Your task to perform on an android device: check out phone information Image 0: 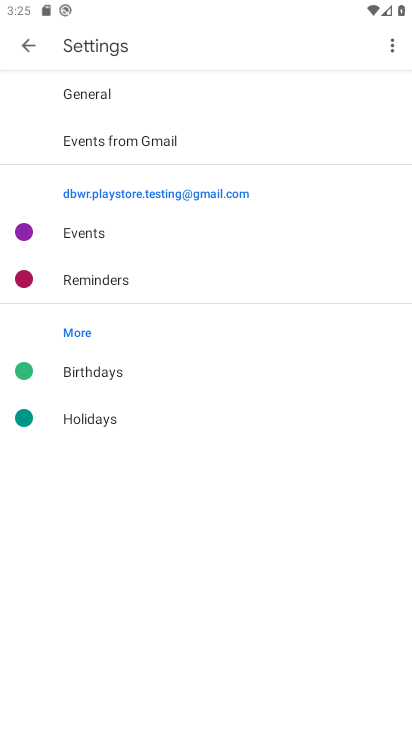
Step 0: drag from (208, 462) to (239, 199)
Your task to perform on an android device: check out phone information Image 1: 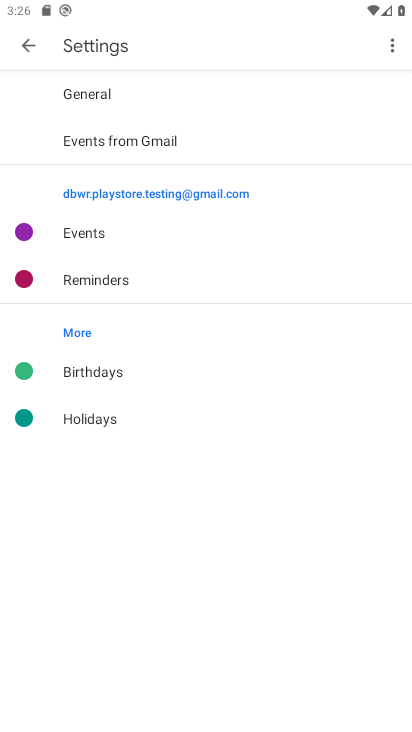
Step 1: press home button
Your task to perform on an android device: check out phone information Image 2: 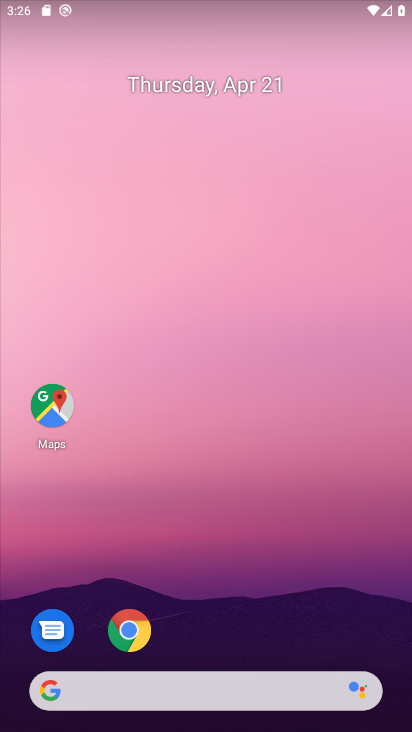
Step 2: drag from (218, 541) to (311, 148)
Your task to perform on an android device: check out phone information Image 3: 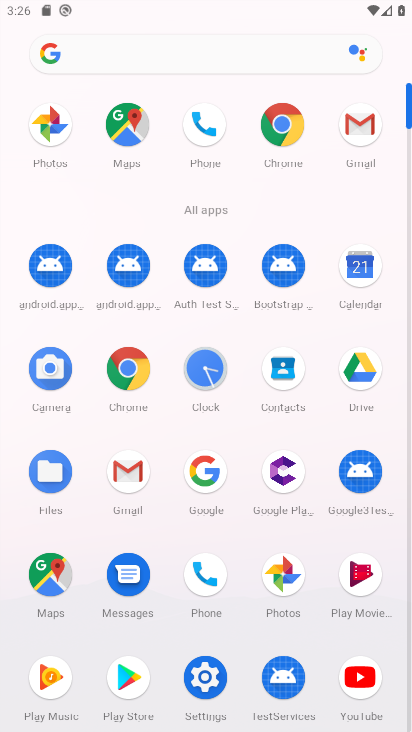
Step 3: click (201, 681)
Your task to perform on an android device: check out phone information Image 4: 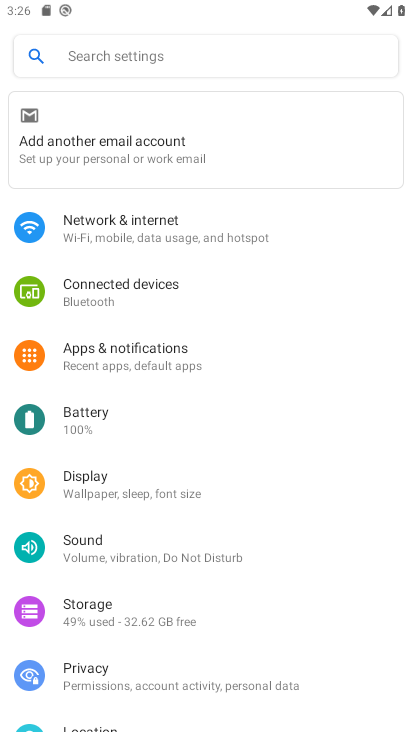
Step 4: drag from (208, 646) to (290, 64)
Your task to perform on an android device: check out phone information Image 5: 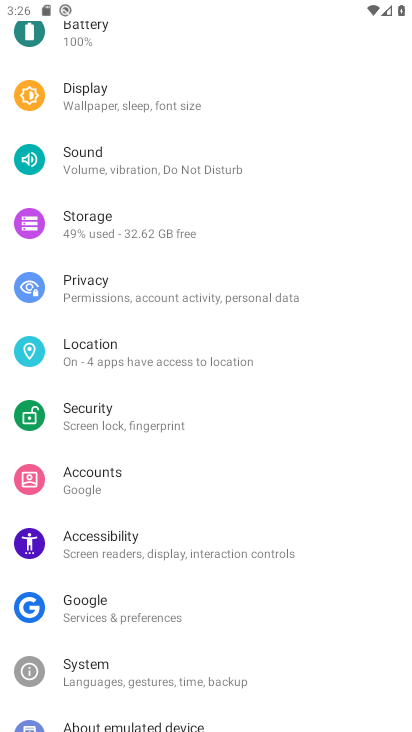
Step 5: drag from (175, 663) to (296, 94)
Your task to perform on an android device: check out phone information Image 6: 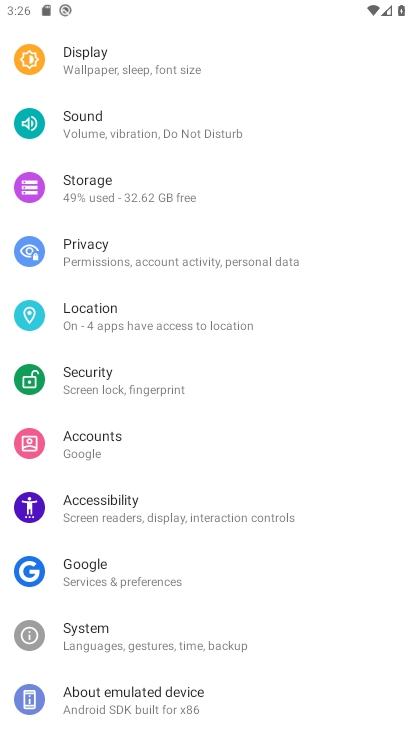
Step 6: click (148, 697)
Your task to perform on an android device: check out phone information Image 7: 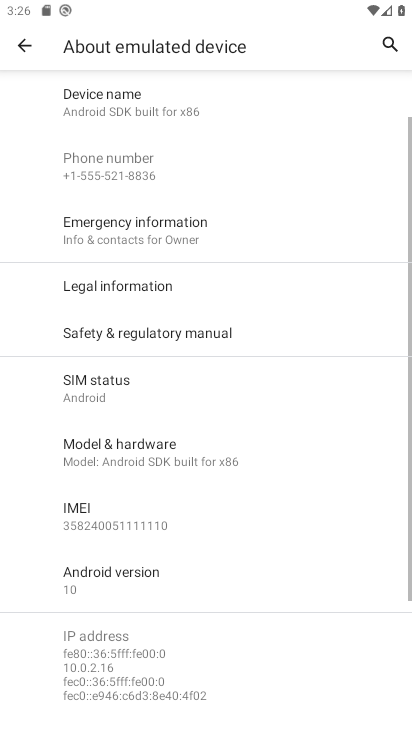
Step 7: task complete